Your task to perform on an android device: open a bookmark in the chrome app Image 0: 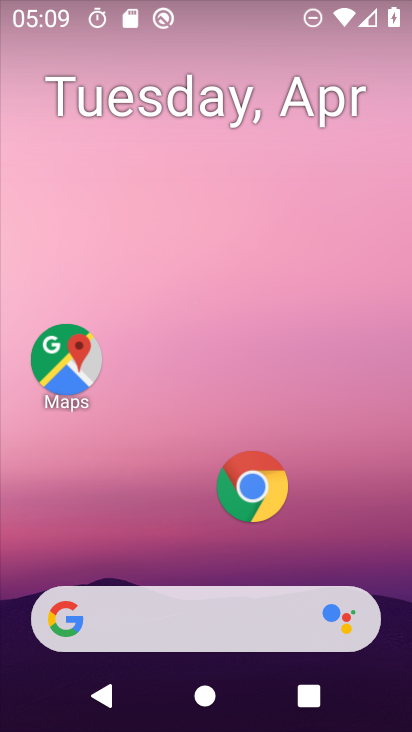
Step 0: click (231, 481)
Your task to perform on an android device: open a bookmark in the chrome app Image 1: 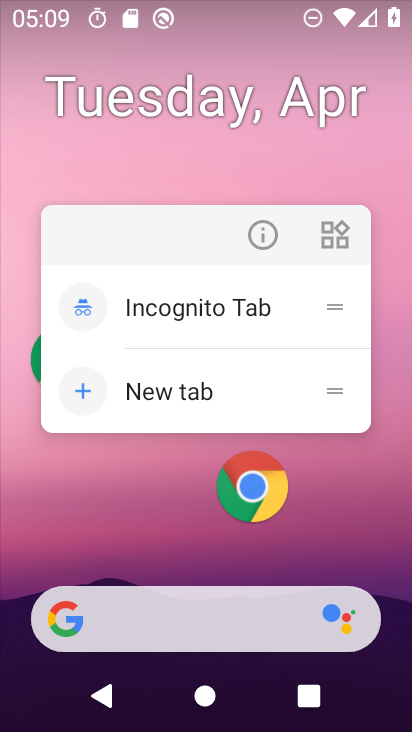
Step 1: click (252, 481)
Your task to perform on an android device: open a bookmark in the chrome app Image 2: 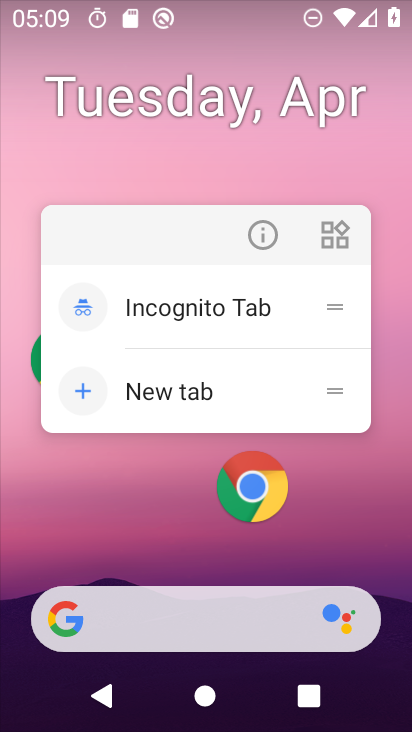
Step 2: click (265, 487)
Your task to perform on an android device: open a bookmark in the chrome app Image 3: 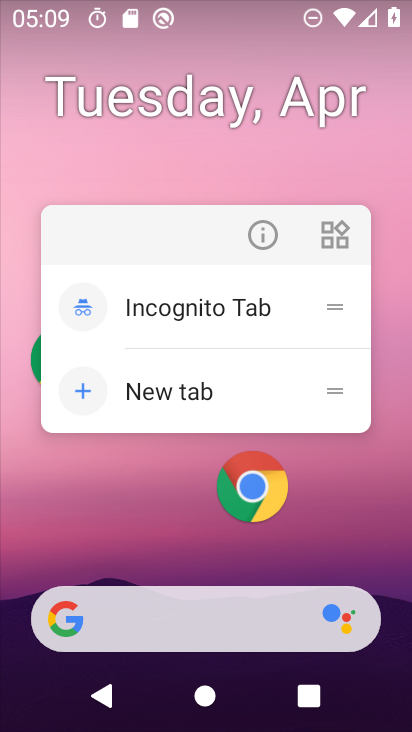
Step 3: click (256, 468)
Your task to perform on an android device: open a bookmark in the chrome app Image 4: 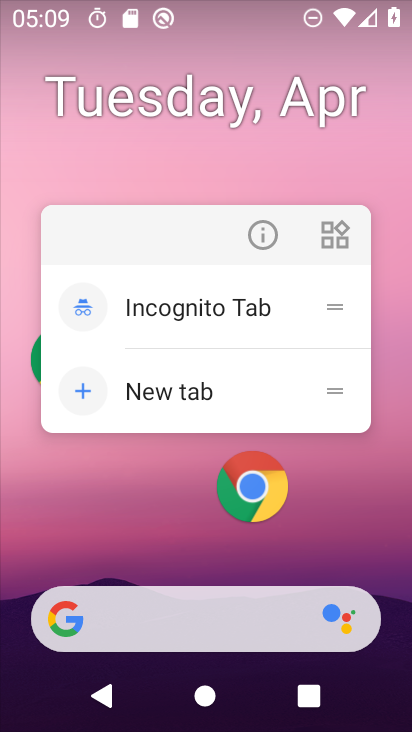
Step 4: click (250, 505)
Your task to perform on an android device: open a bookmark in the chrome app Image 5: 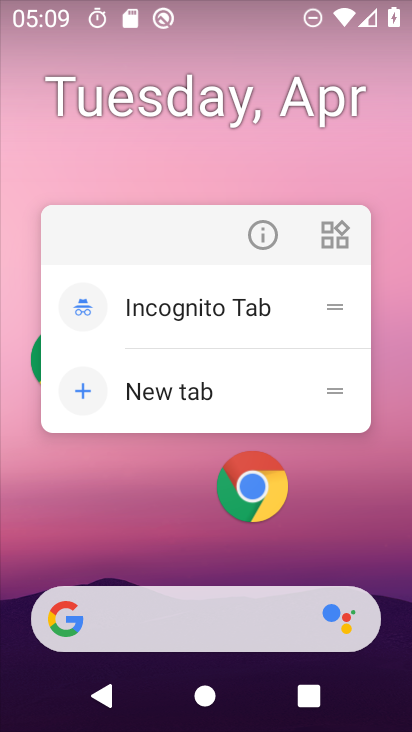
Step 5: click (256, 485)
Your task to perform on an android device: open a bookmark in the chrome app Image 6: 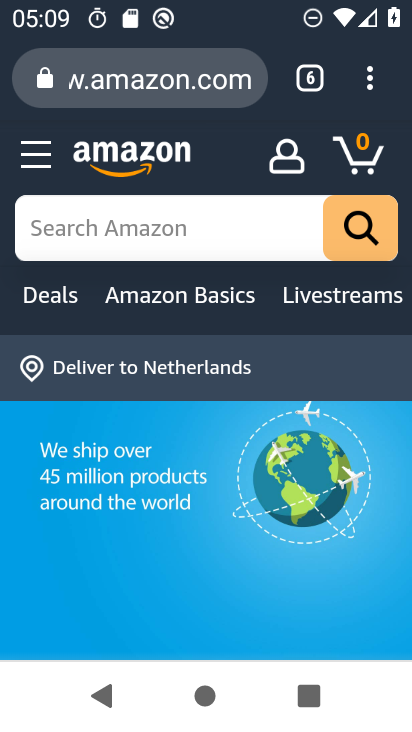
Step 6: click (374, 60)
Your task to perform on an android device: open a bookmark in the chrome app Image 7: 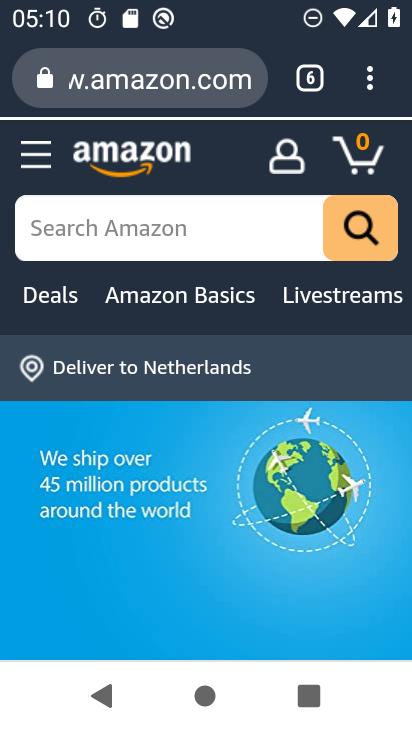
Step 7: drag from (367, 79) to (155, 405)
Your task to perform on an android device: open a bookmark in the chrome app Image 8: 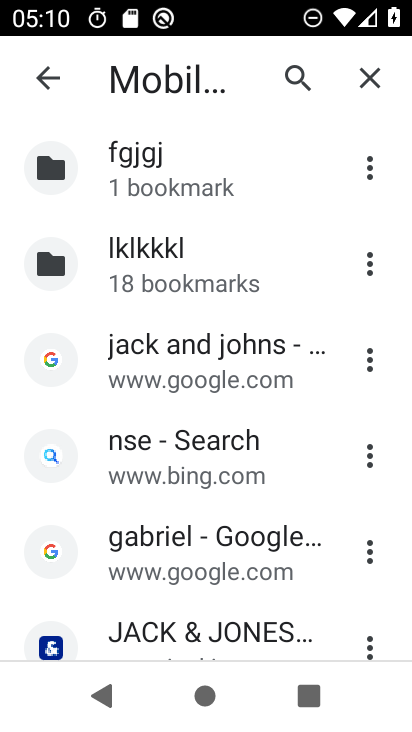
Step 8: click (185, 349)
Your task to perform on an android device: open a bookmark in the chrome app Image 9: 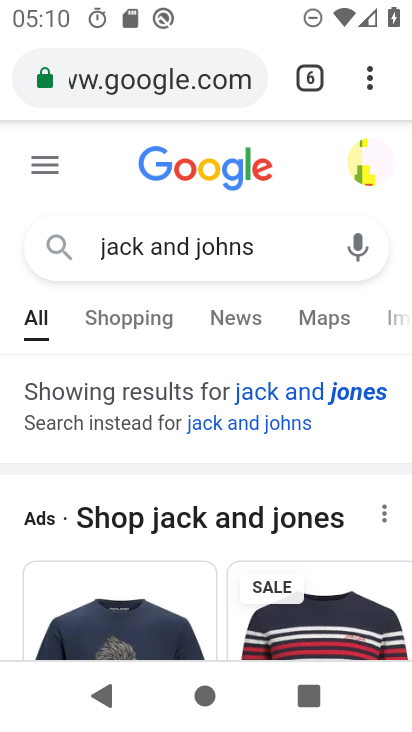
Step 9: task complete